Your task to perform on an android device: turn off picture-in-picture Image 0: 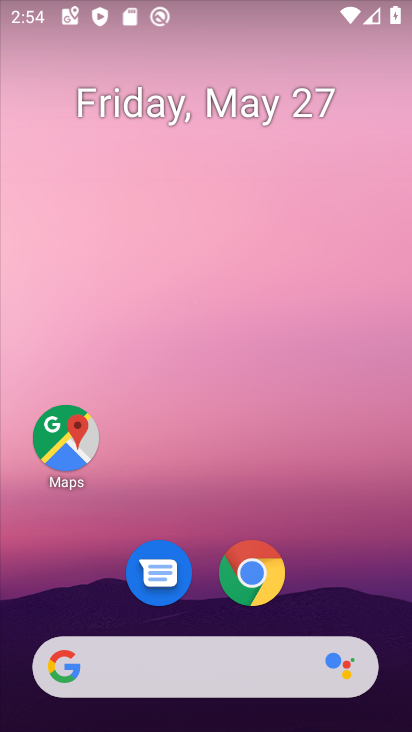
Step 0: click (249, 567)
Your task to perform on an android device: turn off picture-in-picture Image 1: 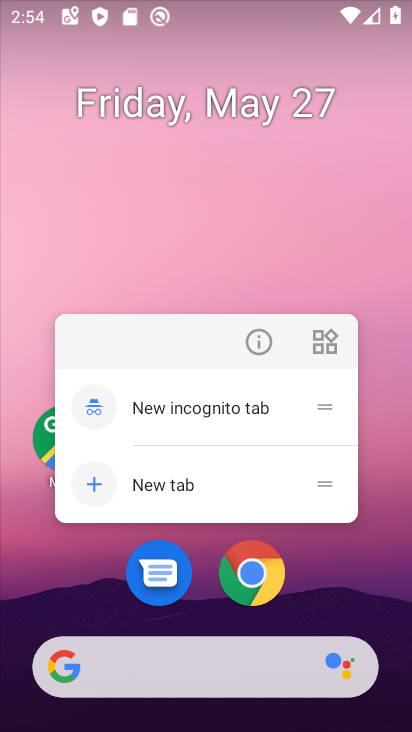
Step 1: click (257, 336)
Your task to perform on an android device: turn off picture-in-picture Image 2: 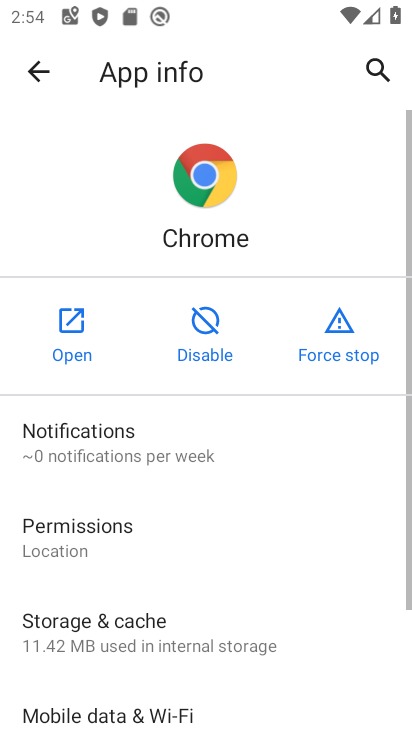
Step 2: drag from (232, 682) to (215, 290)
Your task to perform on an android device: turn off picture-in-picture Image 3: 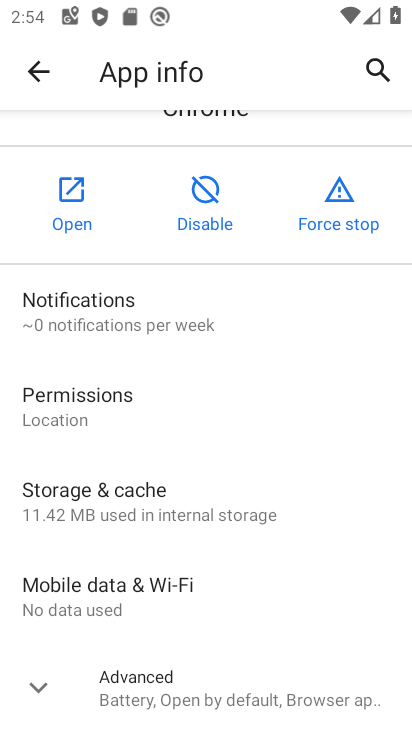
Step 3: click (38, 679)
Your task to perform on an android device: turn off picture-in-picture Image 4: 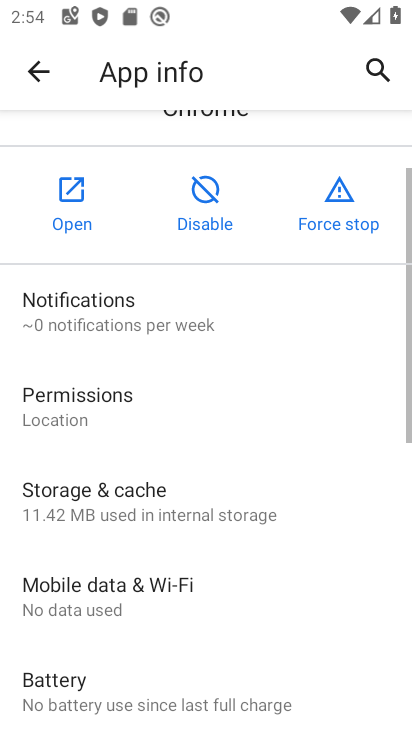
Step 4: drag from (268, 621) to (276, 67)
Your task to perform on an android device: turn off picture-in-picture Image 5: 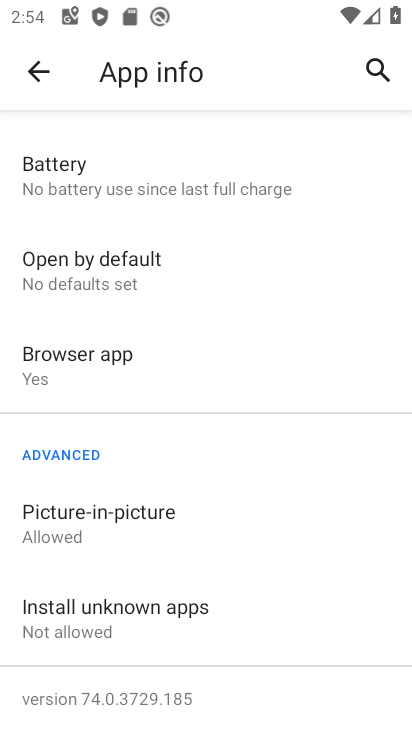
Step 5: click (139, 521)
Your task to perform on an android device: turn off picture-in-picture Image 6: 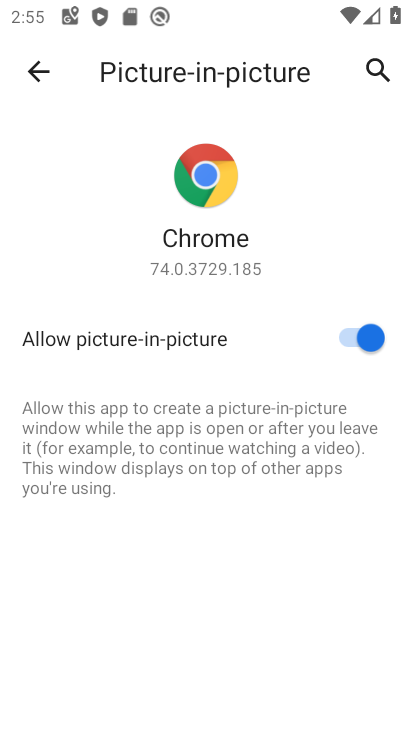
Step 6: click (358, 331)
Your task to perform on an android device: turn off picture-in-picture Image 7: 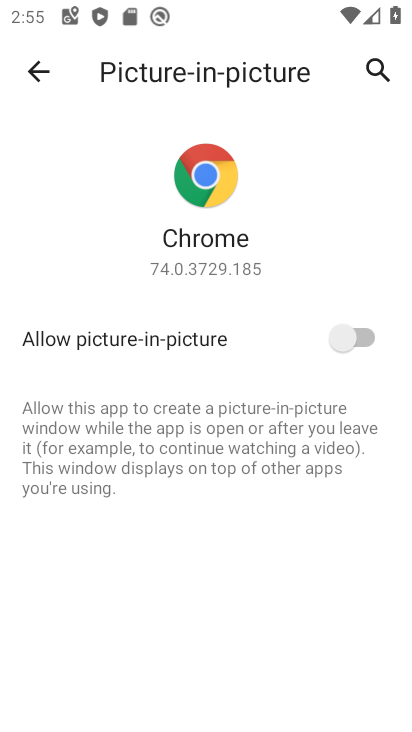
Step 7: task complete